Your task to perform on an android device: check google app version Image 0: 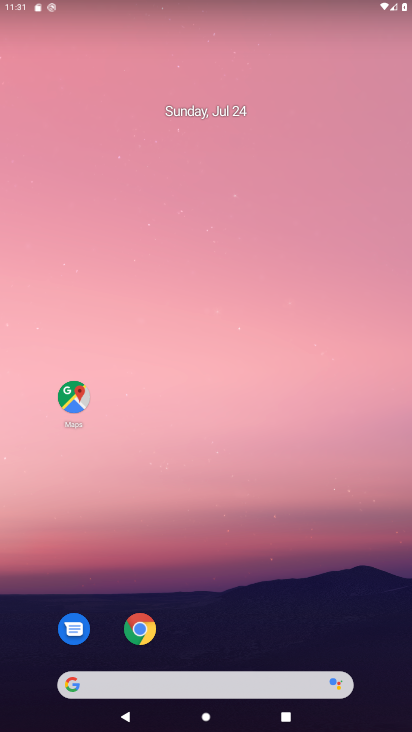
Step 0: click (68, 686)
Your task to perform on an android device: check google app version Image 1: 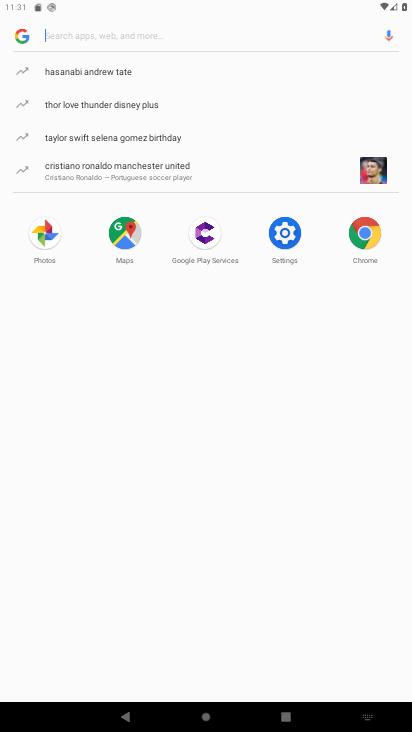
Step 1: click (21, 29)
Your task to perform on an android device: check google app version Image 2: 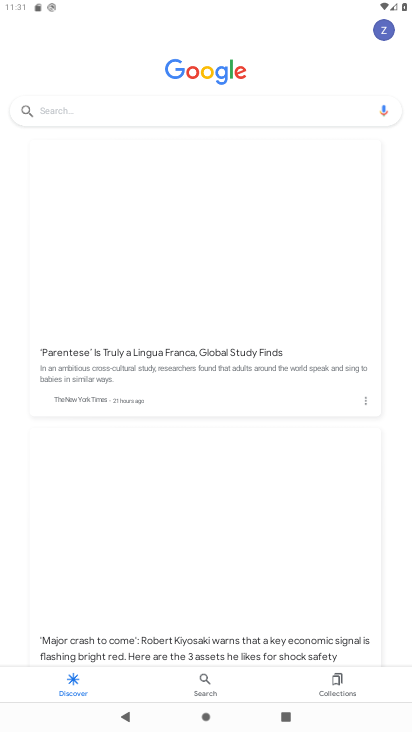
Step 2: click (386, 28)
Your task to perform on an android device: check google app version Image 3: 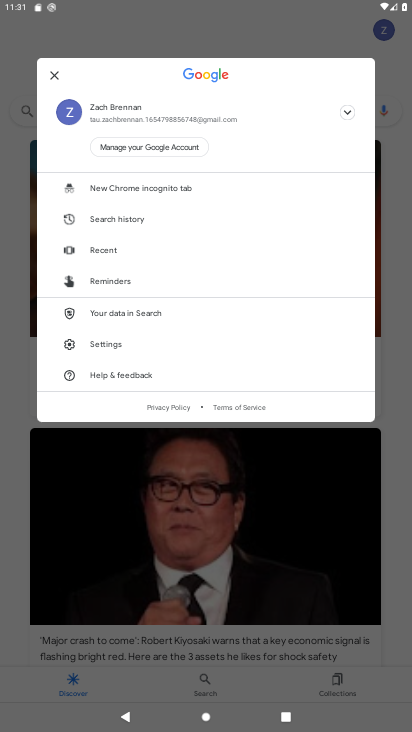
Step 3: click (101, 345)
Your task to perform on an android device: check google app version Image 4: 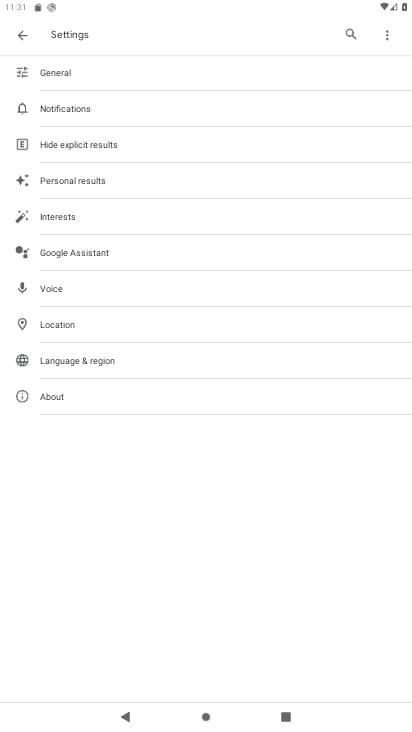
Step 4: click (47, 398)
Your task to perform on an android device: check google app version Image 5: 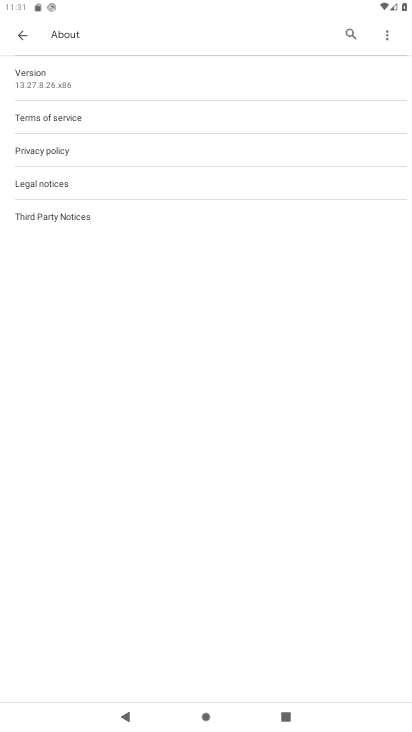
Step 5: task complete